Your task to perform on an android device: Add "razer nari" to the cart on newegg.com, then select checkout. Image 0: 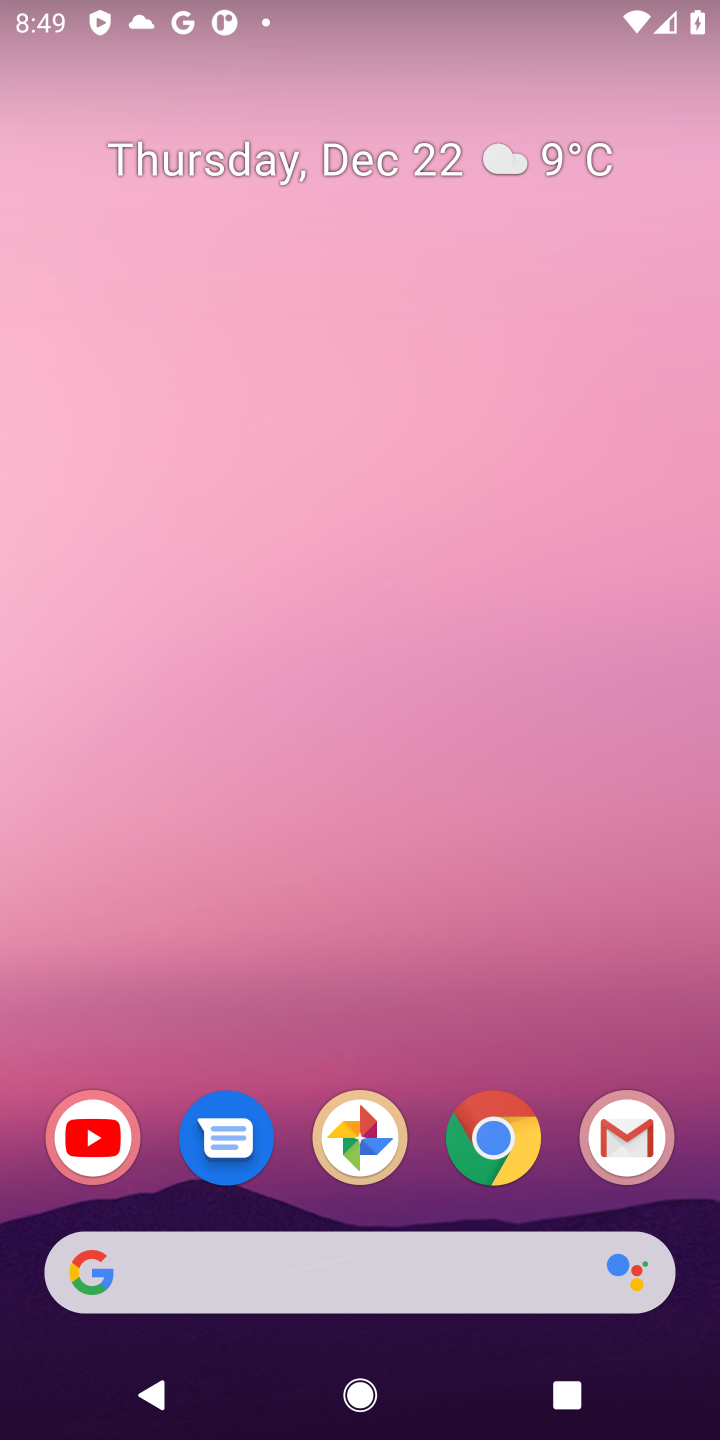
Step 0: click (496, 1171)
Your task to perform on an android device: Add "razer nari" to the cart on newegg.com, then select checkout. Image 1: 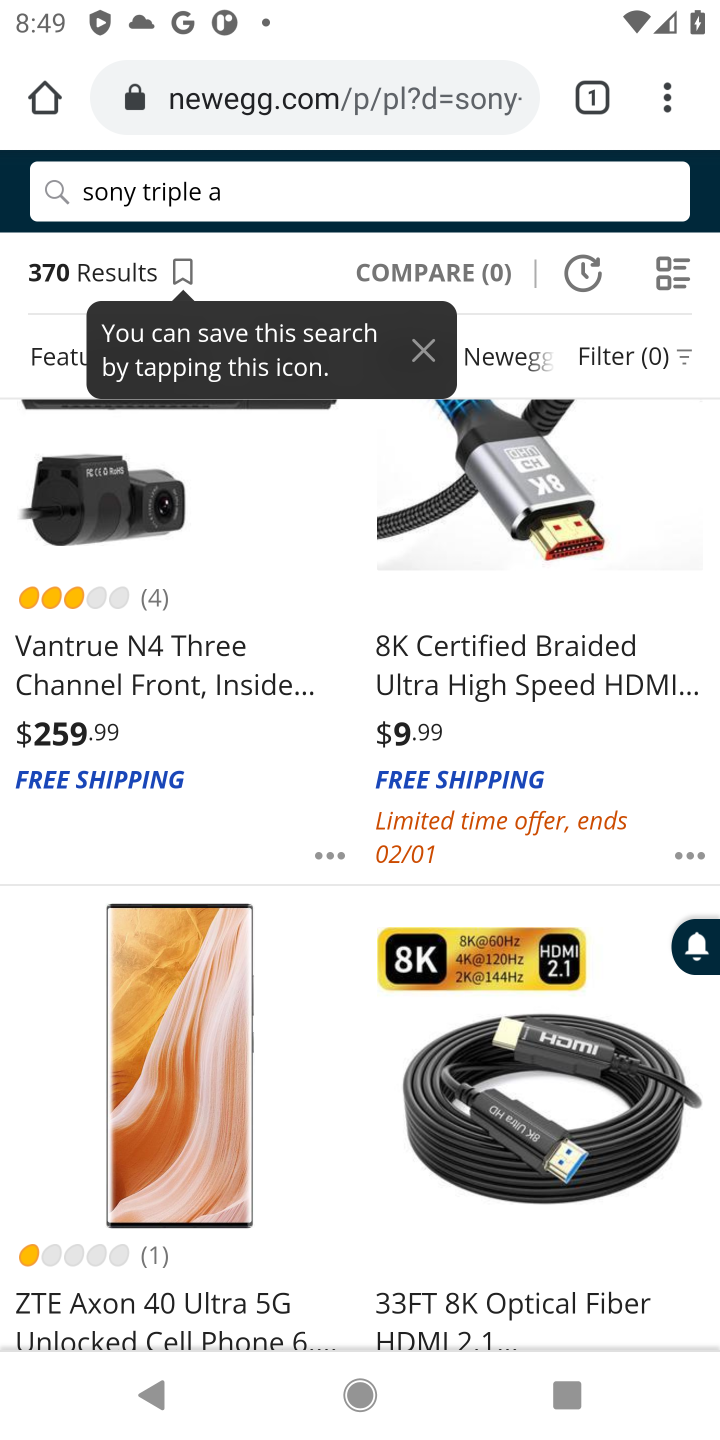
Step 1: click (273, 197)
Your task to perform on an android device: Add "razer nari" to the cart on newegg.com, then select checkout. Image 2: 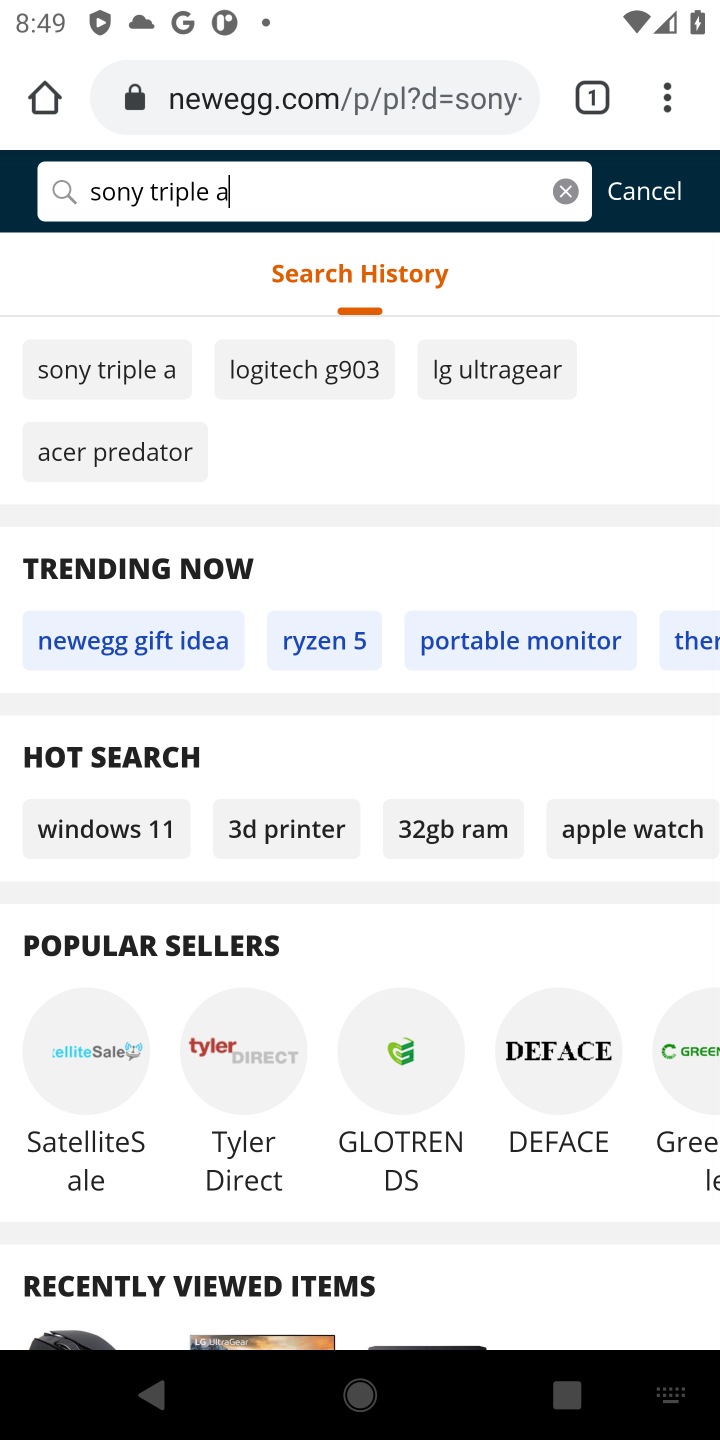
Step 2: click (562, 199)
Your task to perform on an android device: Add "razer nari" to the cart on newegg.com, then select checkout. Image 3: 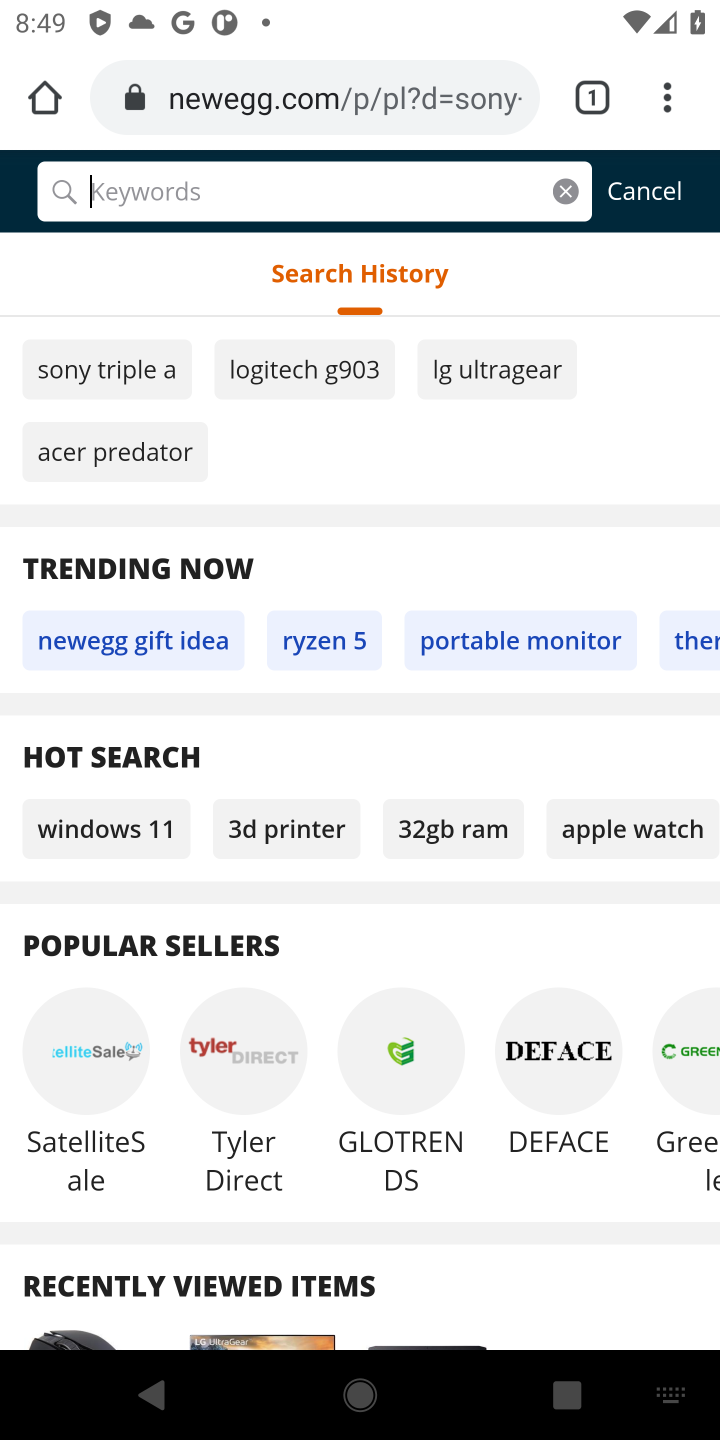
Step 3: type "razer nari"
Your task to perform on an android device: Add "razer nari" to the cart on newegg.com, then select checkout. Image 4: 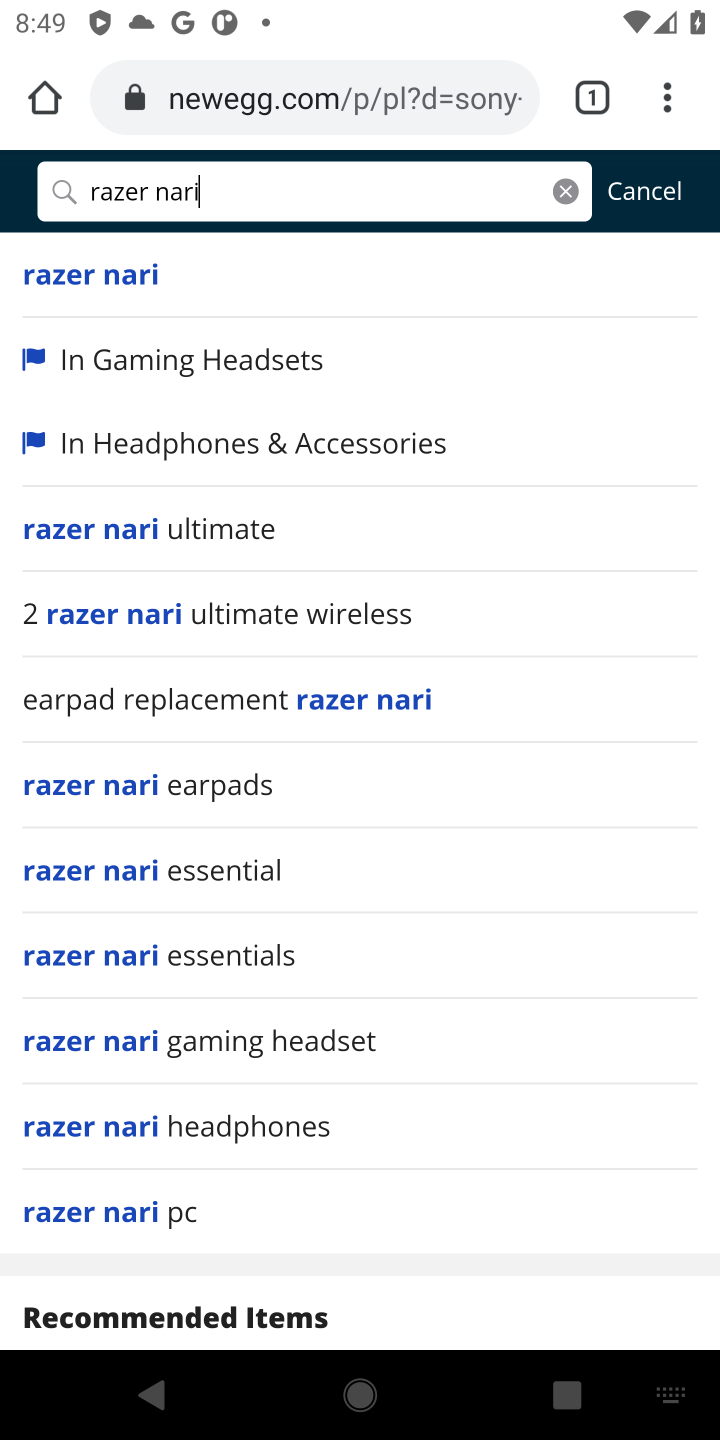
Step 4: press enter
Your task to perform on an android device: Add "razer nari" to the cart on newegg.com, then select checkout. Image 5: 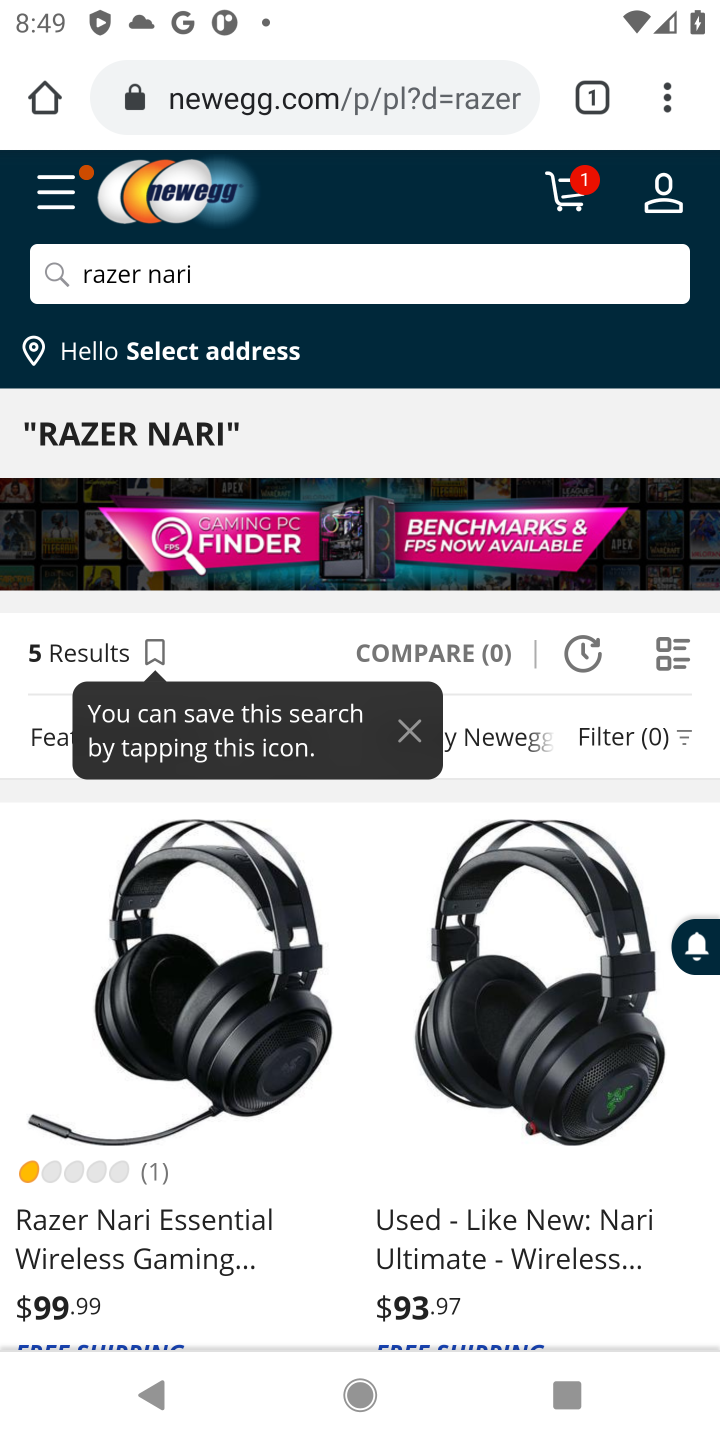
Step 5: click (181, 973)
Your task to perform on an android device: Add "razer nari" to the cart on newegg.com, then select checkout. Image 6: 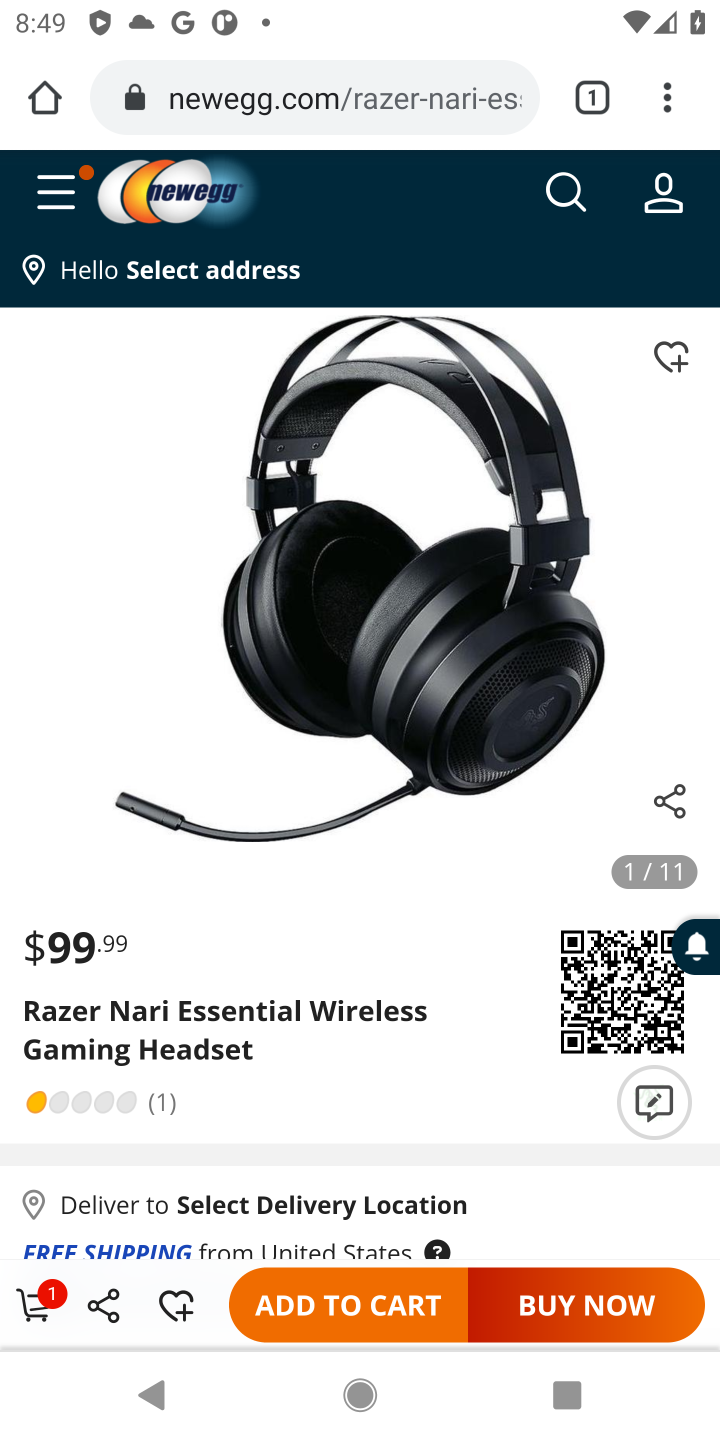
Step 6: drag from (435, 1104) to (503, 532)
Your task to perform on an android device: Add "razer nari" to the cart on newegg.com, then select checkout. Image 7: 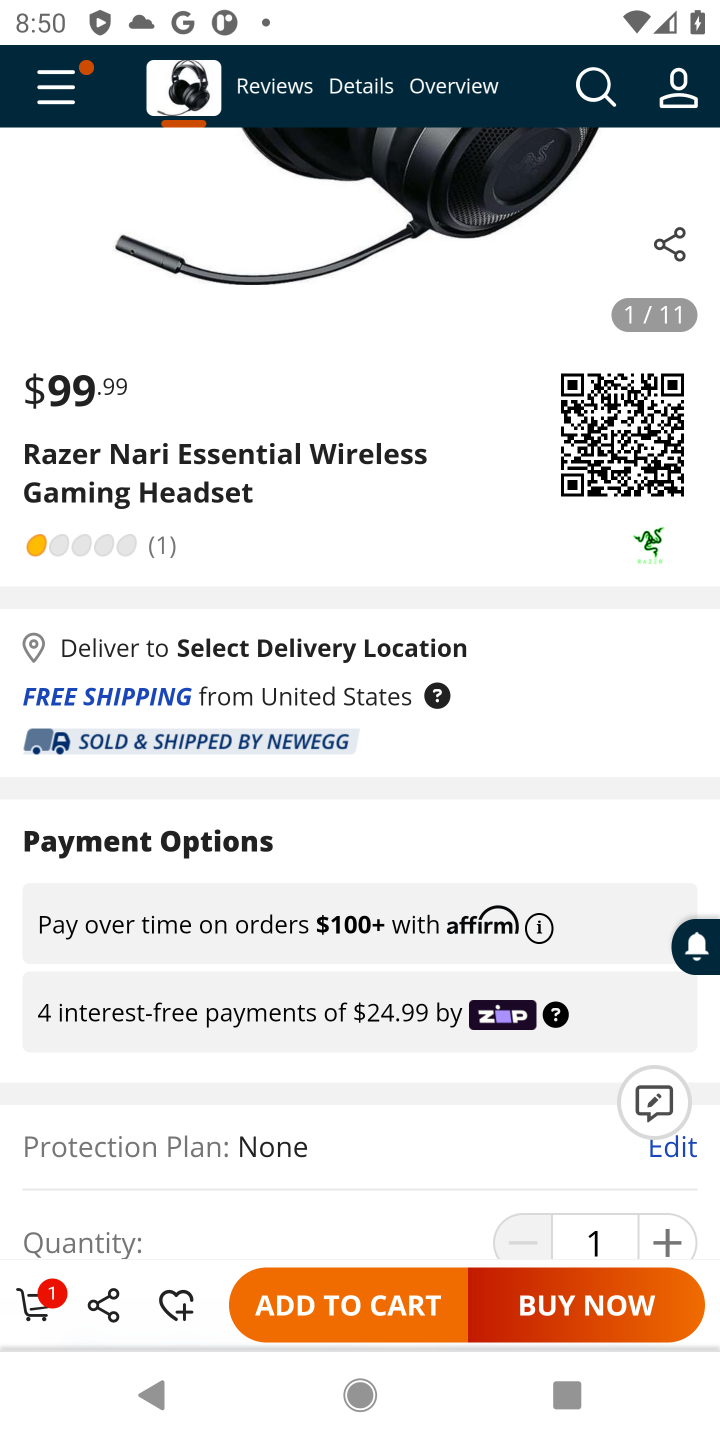
Step 7: click (336, 1325)
Your task to perform on an android device: Add "razer nari" to the cart on newegg.com, then select checkout. Image 8: 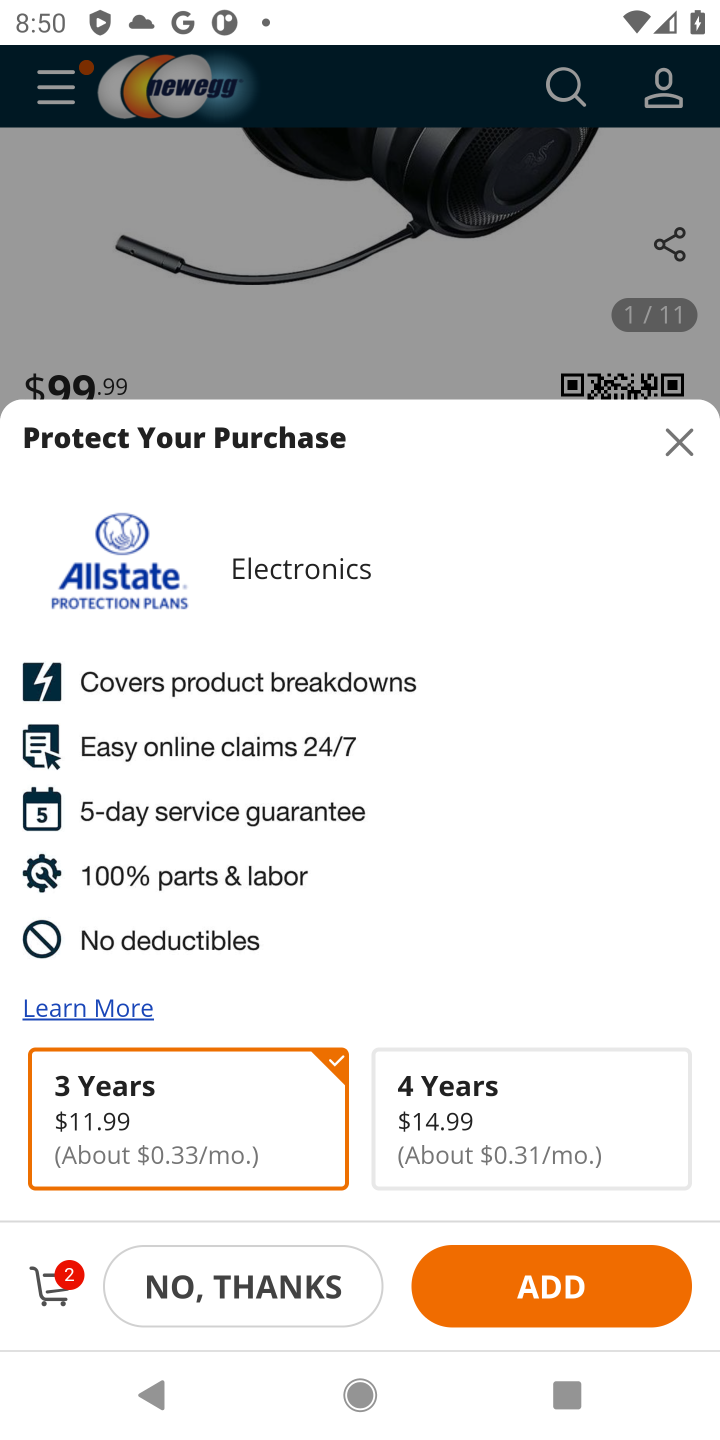
Step 8: click (477, 1284)
Your task to perform on an android device: Add "razer nari" to the cart on newegg.com, then select checkout. Image 9: 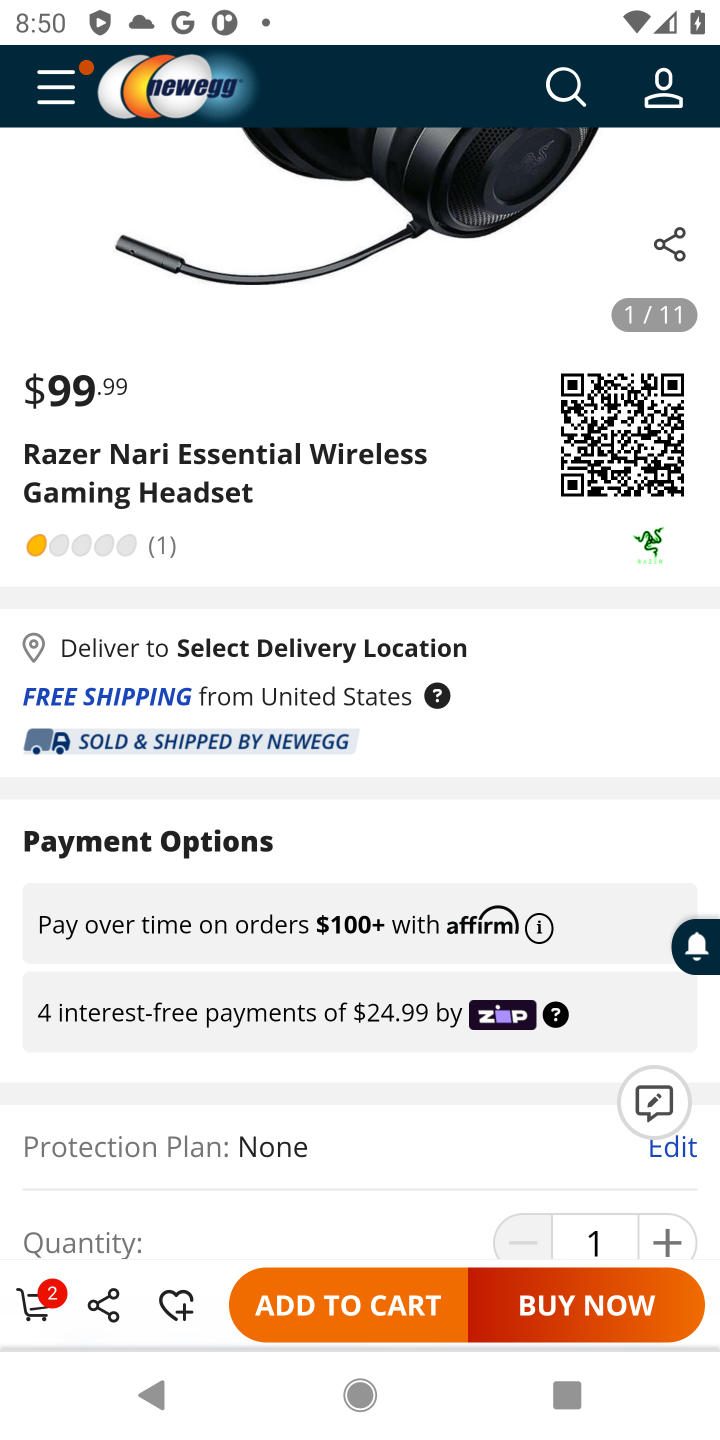
Step 9: click (32, 1299)
Your task to perform on an android device: Add "razer nari" to the cart on newegg.com, then select checkout. Image 10: 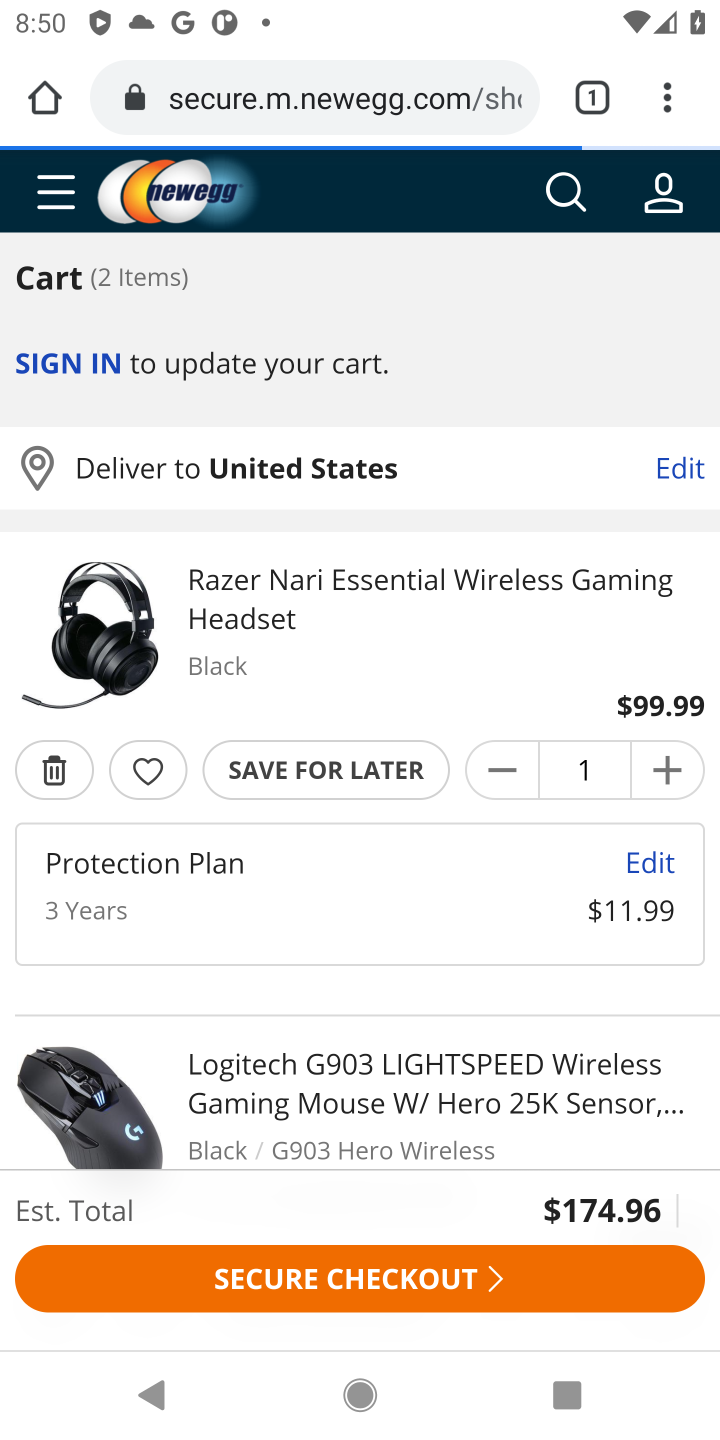
Step 10: click (228, 1291)
Your task to perform on an android device: Add "razer nari" to the cart on newegg.com, then select checkout. Image 11: 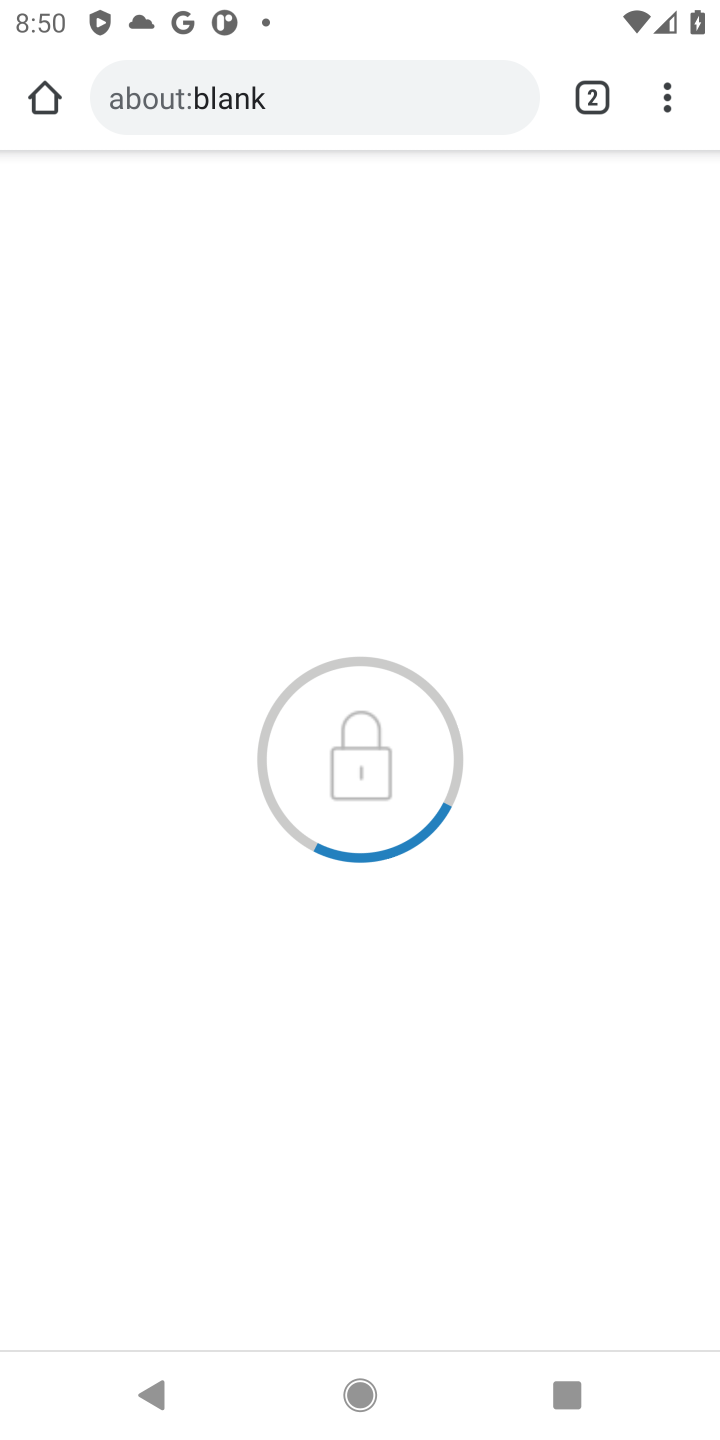
Step 11: task complete